Your task to perform on an android device: set the timer Image 0: 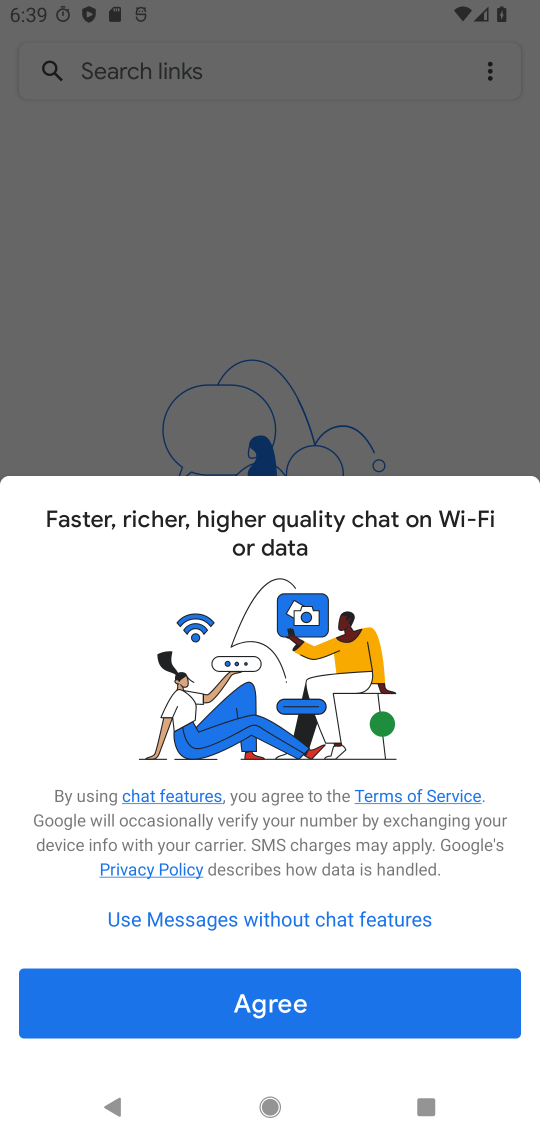
Step 0: press home button
Your task to perform on an android device: set the timer Image 1: 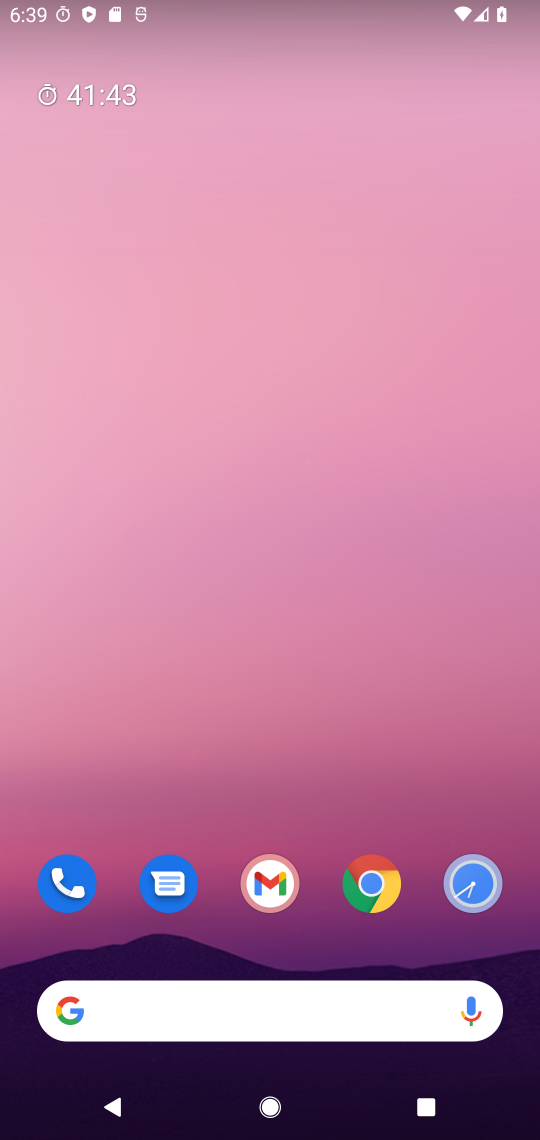
Step 1: drag from (257, 811) to (261, 211)
Your task to perform on an android device: set the timer Image 2: 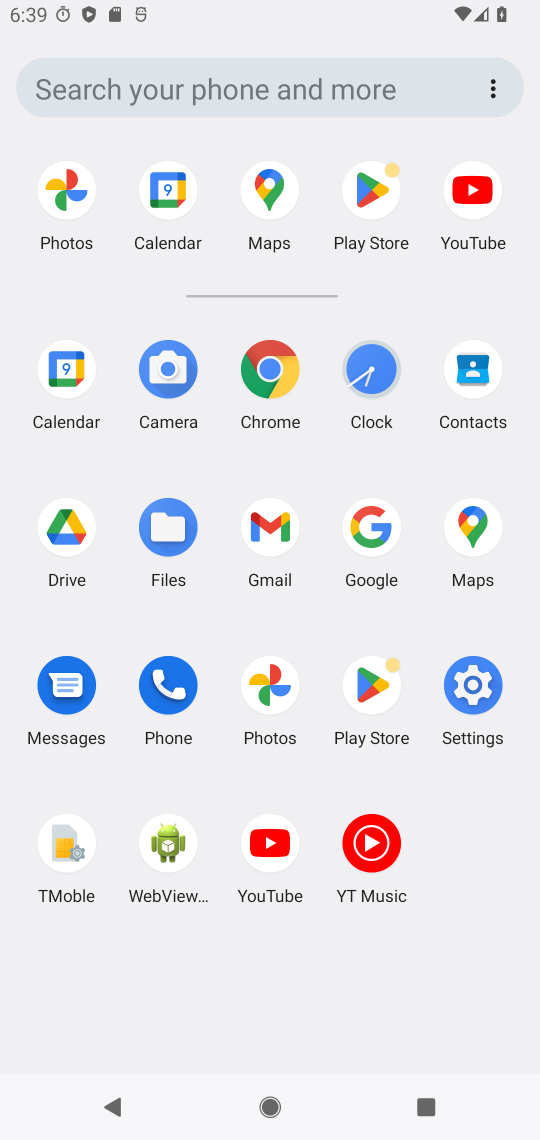
Step 2: click (346, 363)
Your task to perform on an android device: set the timer Image 3: 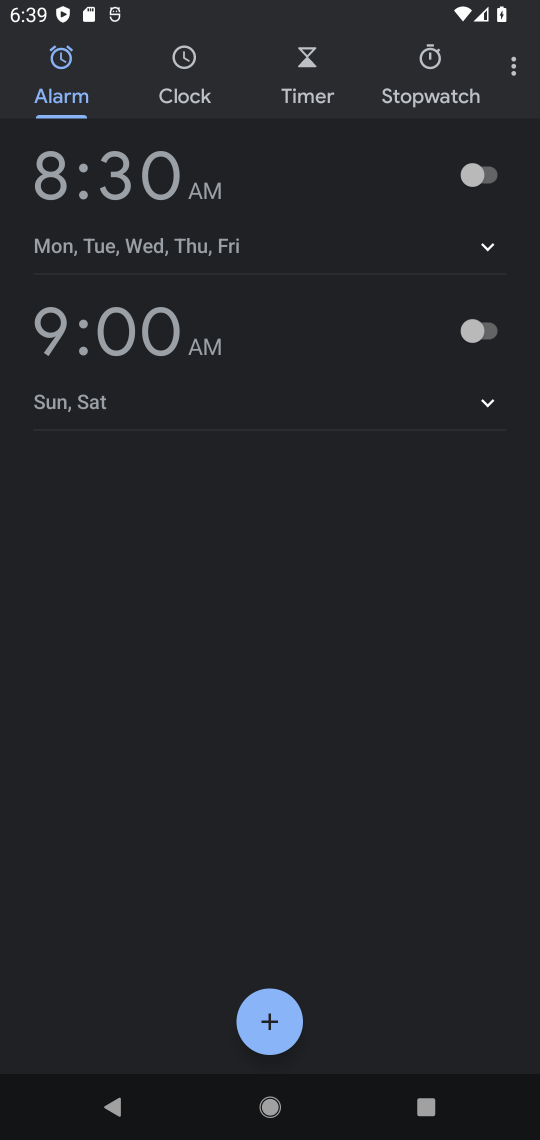
Step 3: click (288, 79)
Your task to perform on an android device: set the timer Image 4: 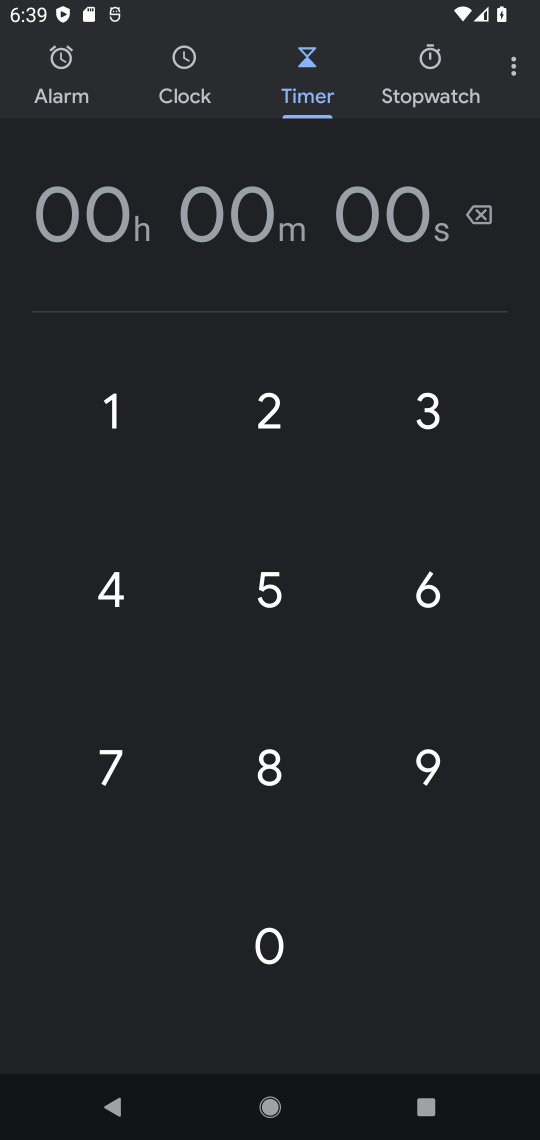
Step 4: click (398, 225)
Your task to perform on an android device: set the timer Image 5: 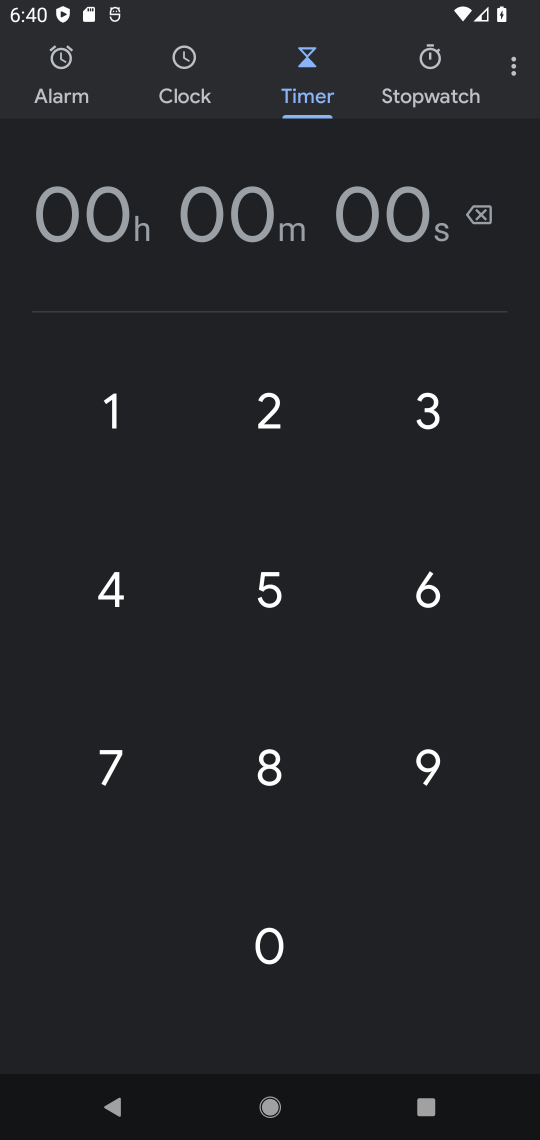
Step 5: type "11"
Your task to perform on an android device: set the timer Image 6: 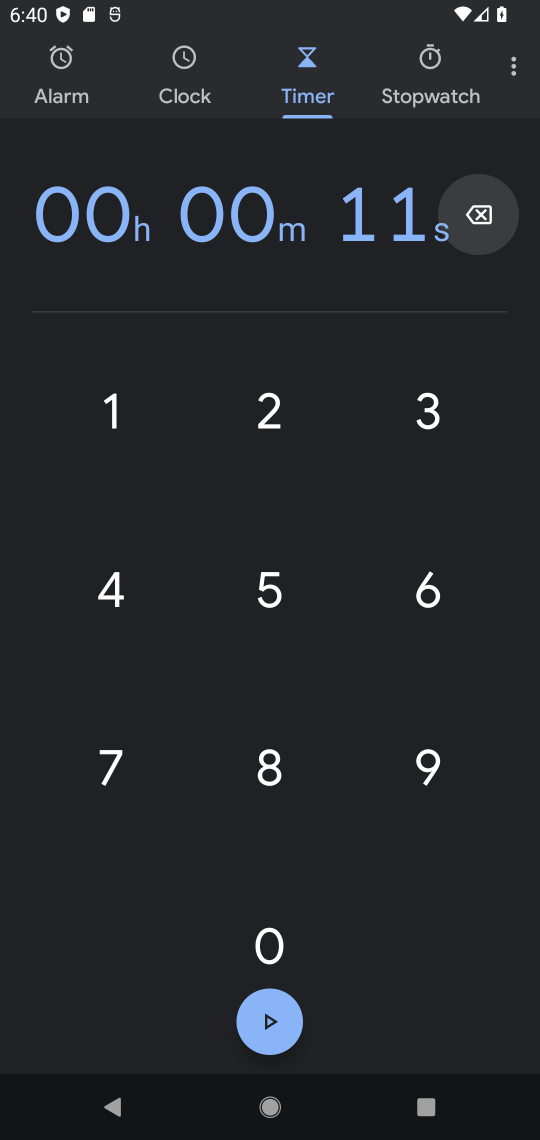
Step 6: click (266, 1033)
Your task to perform on an android device: set the timer Image 7: 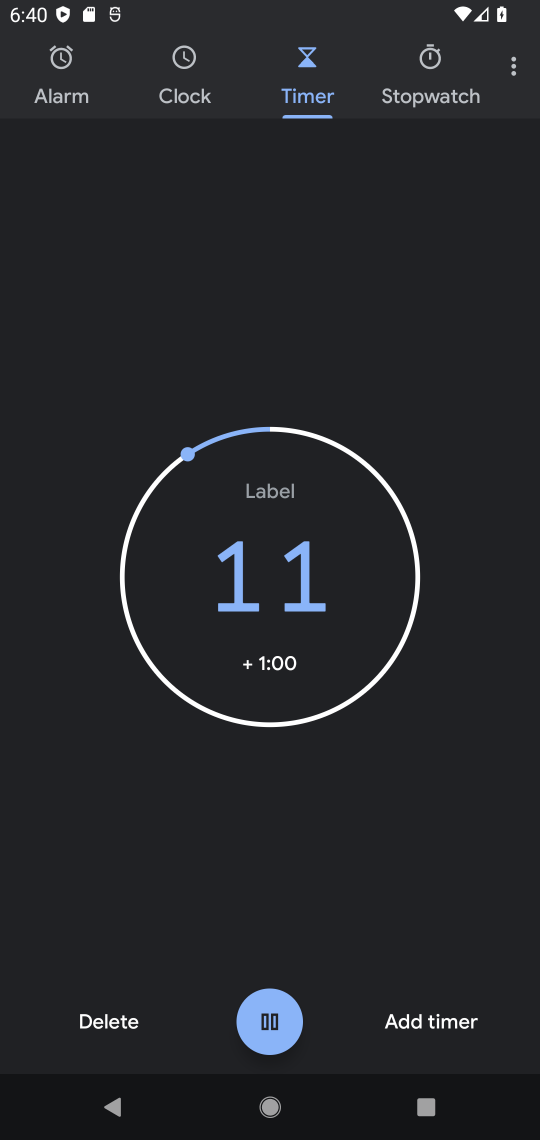
Step 7: task complete